Your task to perform on an android device: turn off javascript in the chrome app Image 0: 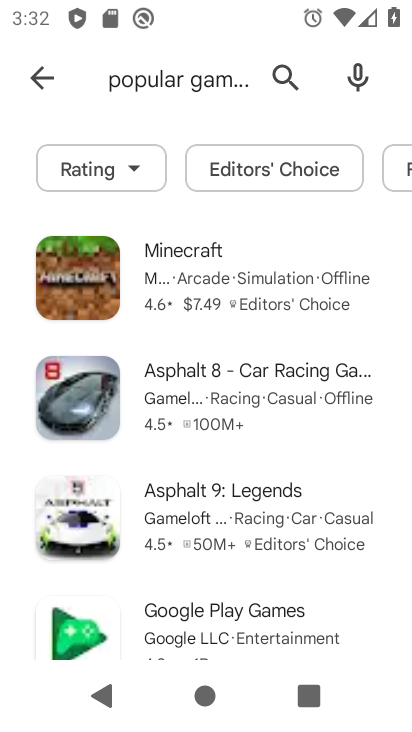
Step 0: press home button
Your task to perform on an android device: turn off javascript in the chrome app Image 1: 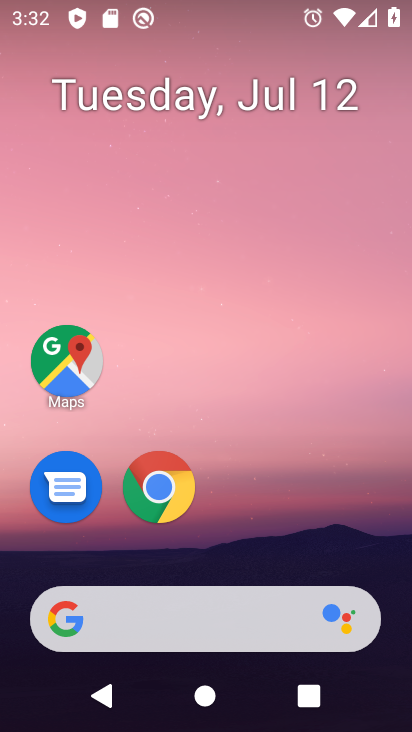
Step 1: click (162, 501)
Your task to perform on an android device: turn off javascript in the chrome app Image 2: 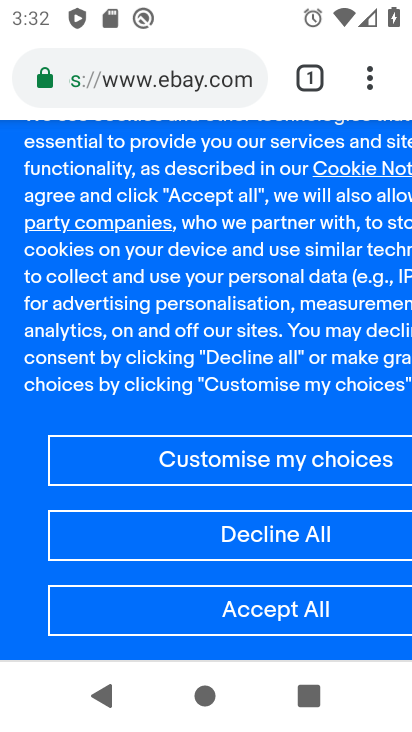
Step 2: click (369, 72)
Your task to perform on an android device: turn off javascript in the chrome app Image 3: 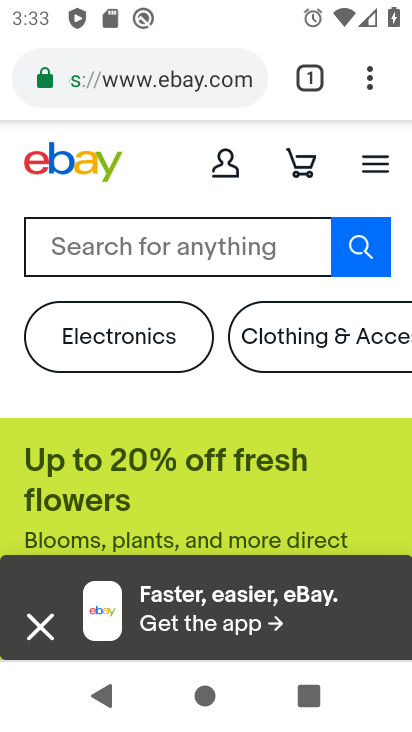
Step 3: click (368, 75)
Your task to perform on an android device: turn off javascript in the chrome app Image 4: 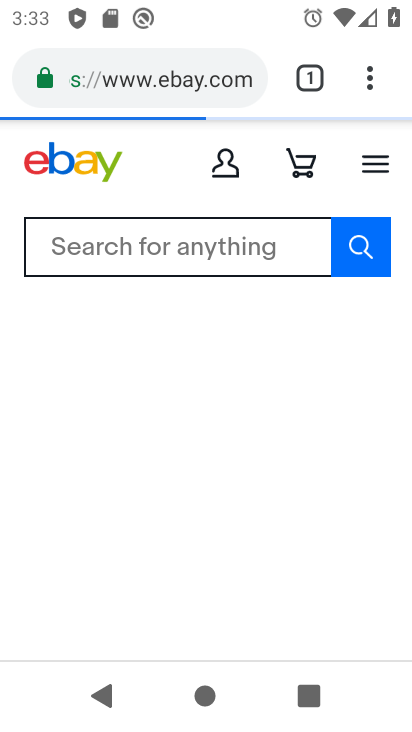
Step 4: click (368, 75)
Your task to perform on an android device: turn off javascript in the chrome app Image 5: 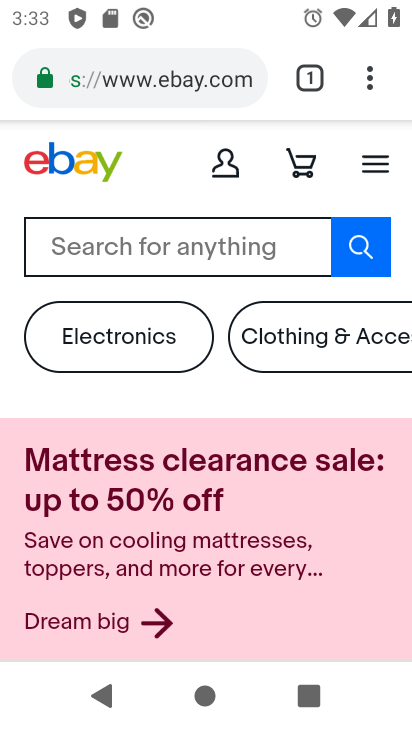
Step 5: click (367, 73)
Your task to perform on an android device: turn off javascript in the chrome app Image 6: 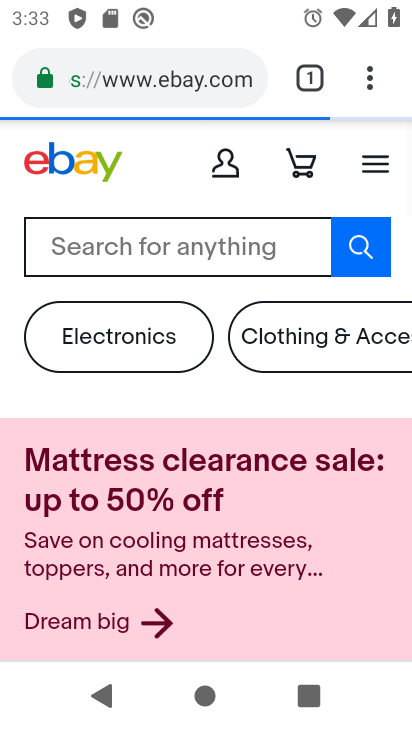
Step 6: click (366, 73)
Your task to perform on an android device: turn off javascript in the chrome app Image 7: 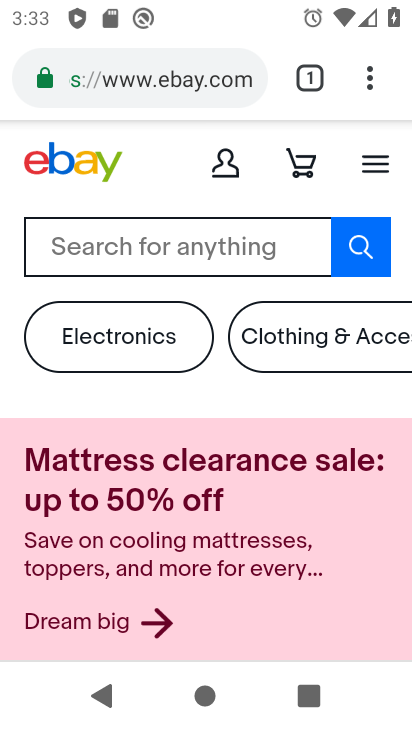
Step 7: click (366, 73)
Your task to perform on an android device: turn off javascript in the chrome app Image 8: 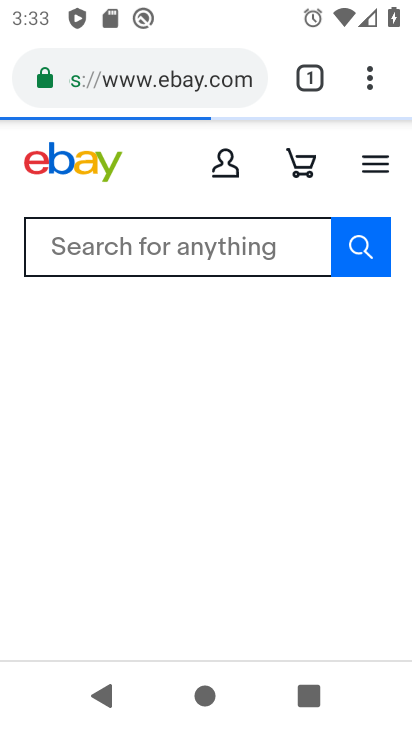
Step 8: click (371, 74)
Your task to perform on an android device: turn off javascript in the chrome app Image 9: 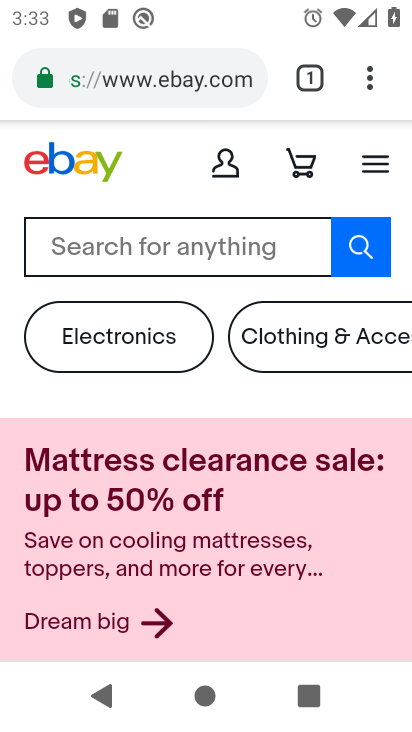
Step 9: click (371, 74)
Your task to perform on an android device: turn off javascript in the chrome app Image 10: 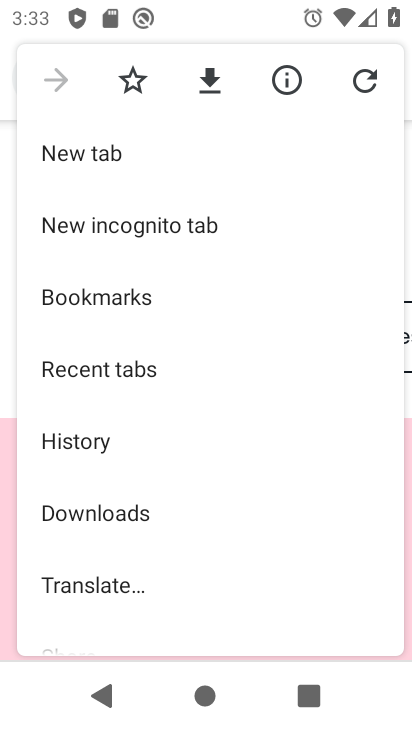
Step 10: drag from (65, 600) to (68, 271)
Your task to perform on an android device: turn off javascript in the chrome app Image 11: 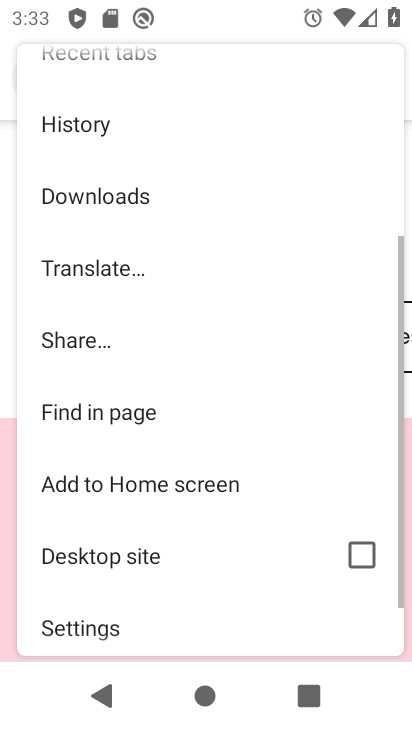
Step 11: click (89, 629)
Your task to perform on an android device: turn off javascript in the chrome app Image 12: 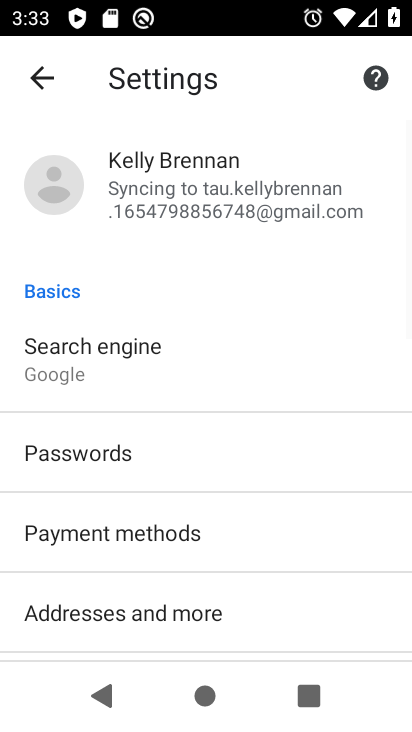
Step 12: drag from (79, 632) to (66, 107)
Your task to perform on an android device: turn off javascript in the chrome app Image 13: 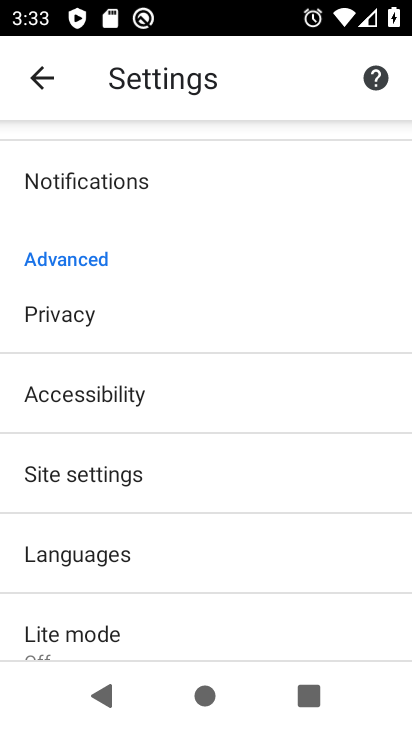
Step 13: click (59, 478)
Your task to perform on an android device: turn off javascript in the chrome app Image 14: 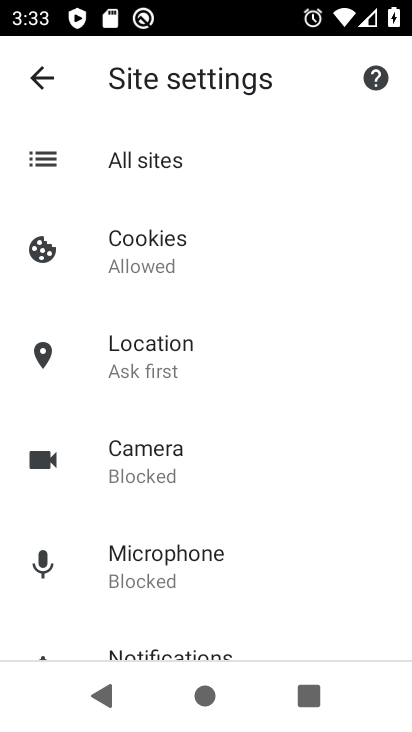
Step 14: drag from (157, 608) to (131, 142)
Your task to perform on an android device: turn off javascript in the chrome app Image 15: 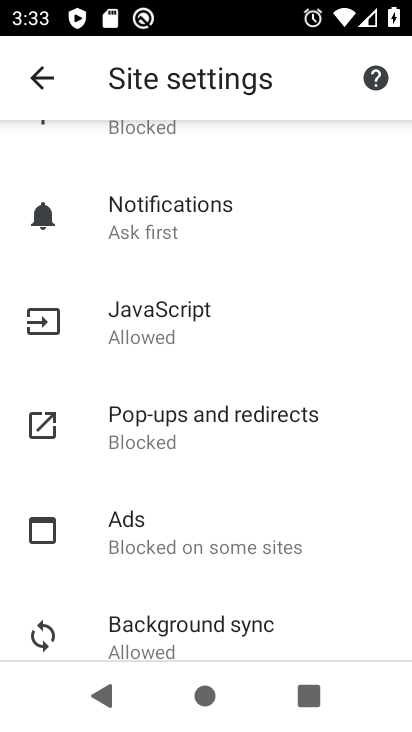
Step 15: click (131, 327)
Your task to perform on an android device: turn off javascript in the chrome app Image 16: 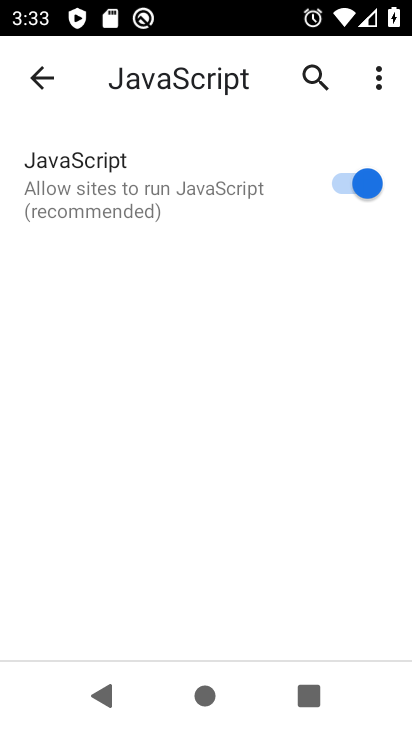
Step 16: click (351, 183)
Your task to perform on an android device: turn off javascript in the chrome app Image 17: 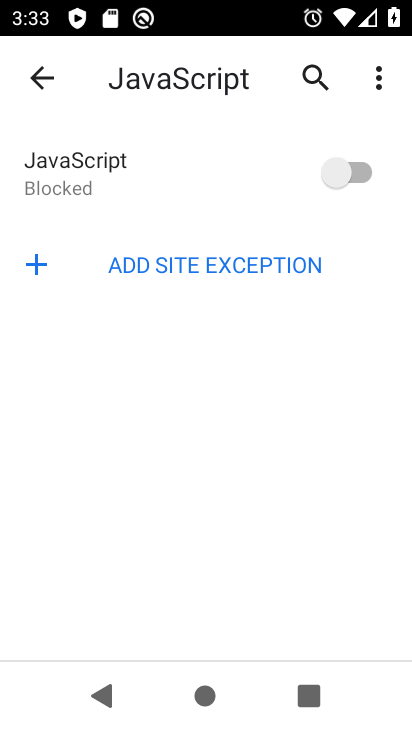
Step 17: task complete